Your task to perform on an android device: turn off javascript in the chrome app Image 0: 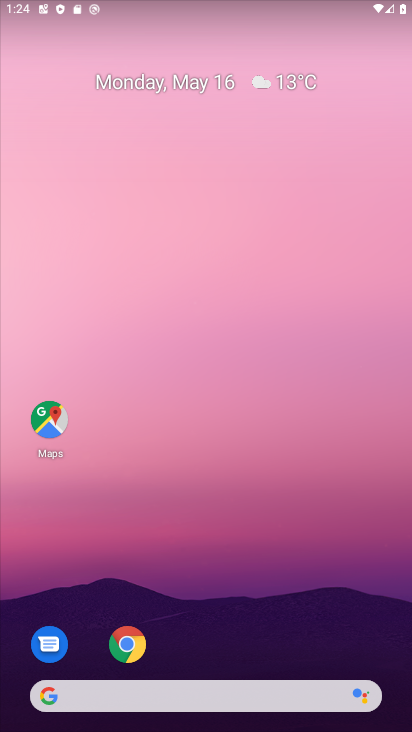
Step 0: click (130, 657)
Your task to perform on an android device: turn off javascript in the chrome app Image 1: 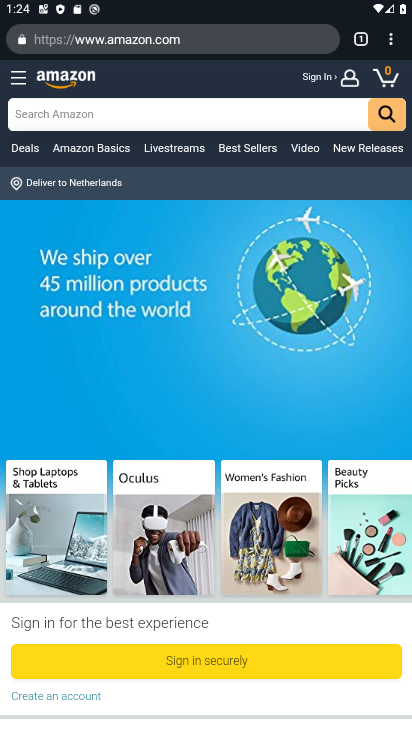
Step 1: click (394, 43)
Your task to perform on an android device: turn off javascript in the chrome app Image 2: 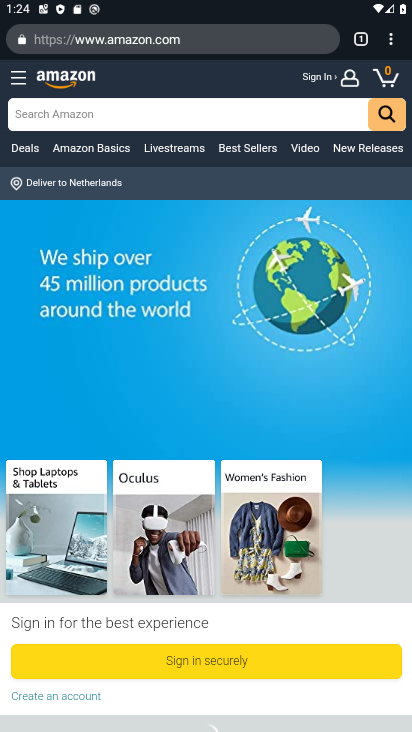
Step 2: click (394, 42)
Your task to perform on an android device: turn off javascript in the chrome app Image 3: 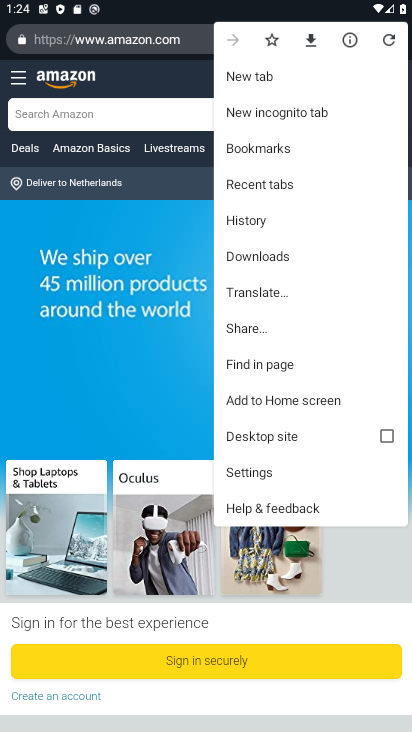
Step 3: drag from (293, 422) to (349, 99)
Your task to perform on an android device: turn off javascript in the chrome app Image 4: 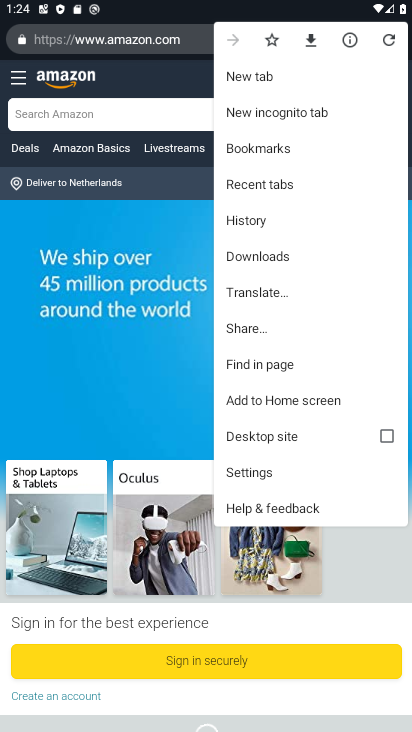
Step 4: click (272, 463)
Your task to perform on an android device: turn off javascript in the chrome app Image 5: 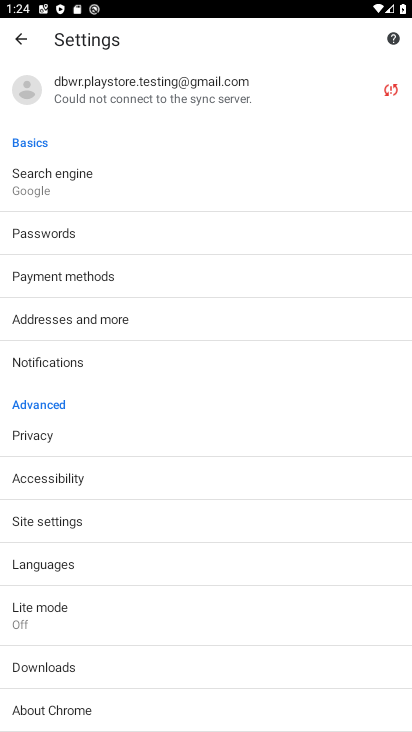
Step 5: drag from (194, 584) to (233, 351)
Your task to perform on an android device: turn off javascript in the chrome app Image 6: 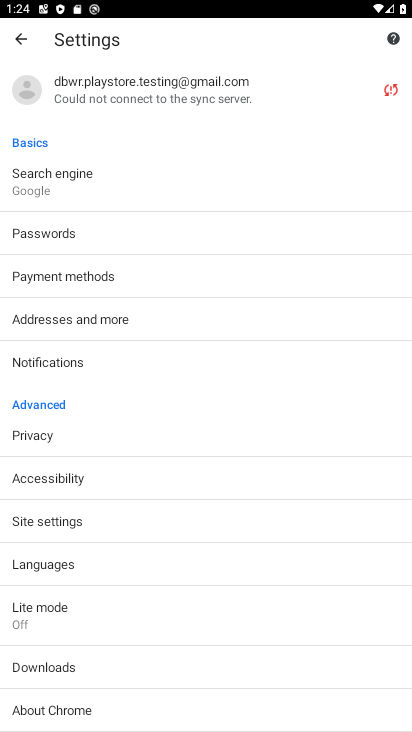
Step 6: click (100, 520)
Your task to perform on an android device: turn off javascript in the chrome app Image 7: 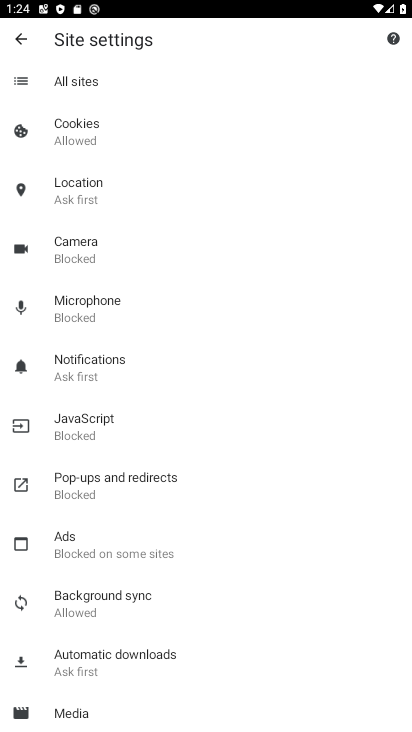
Step 7: click (121, 433)
Your task to perform on an android device: turn off javascript in the chrome app Image 8: 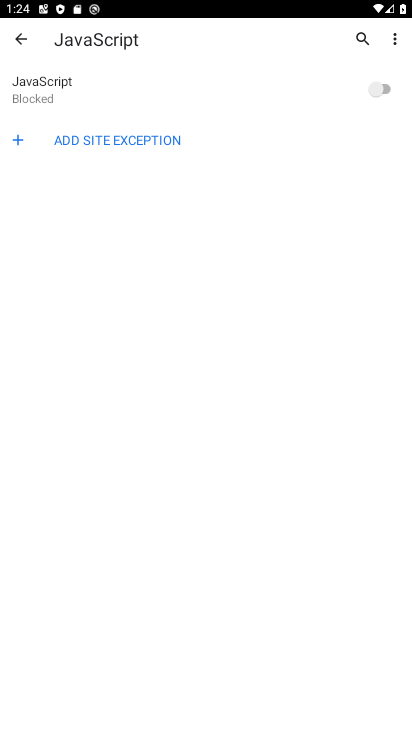
Step 8: task complete